Your task to perform on an android device: turn off location history Image 0: 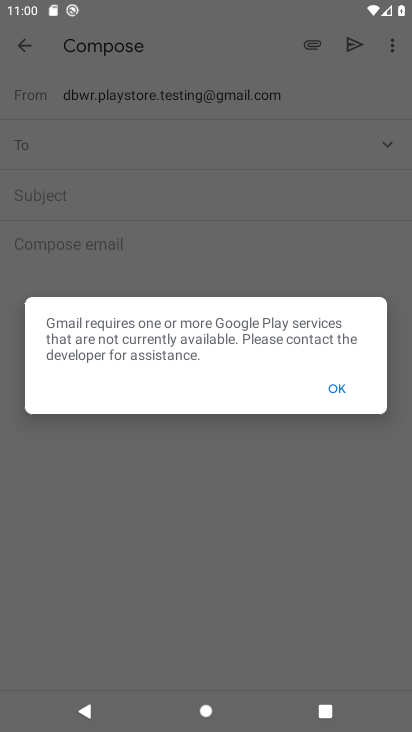
Step 0: press home button
Your task to perform on an android device: turn off location history Image 1: 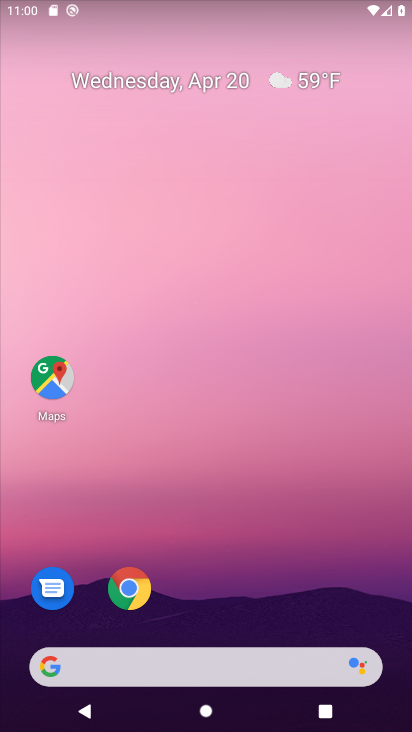
Step 1: click (50, 383)
Your task to perform on an android device: turn off location history Image 2: 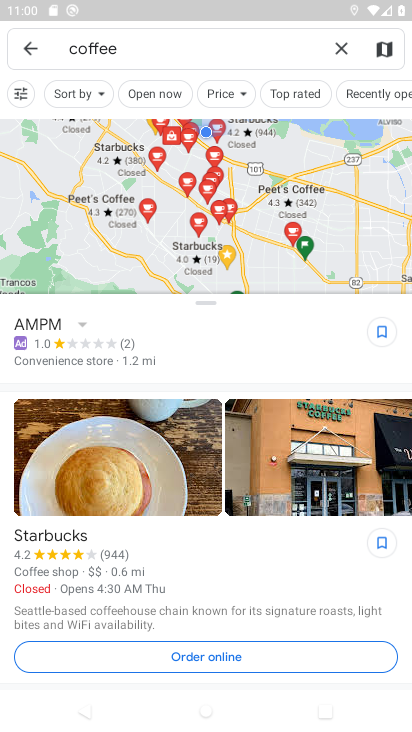
Step 2: click (24, 50)
Your task to perform on an android device: turn off location history Image 3: 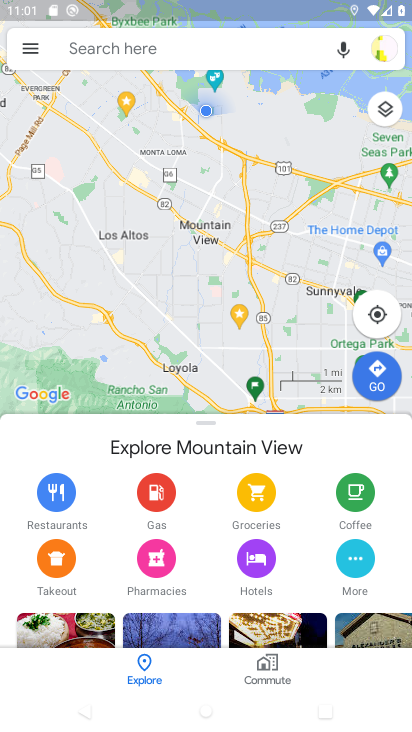
Step 3: click (34, 49)
Your task to perform on an android device: turn off location history Image 4: 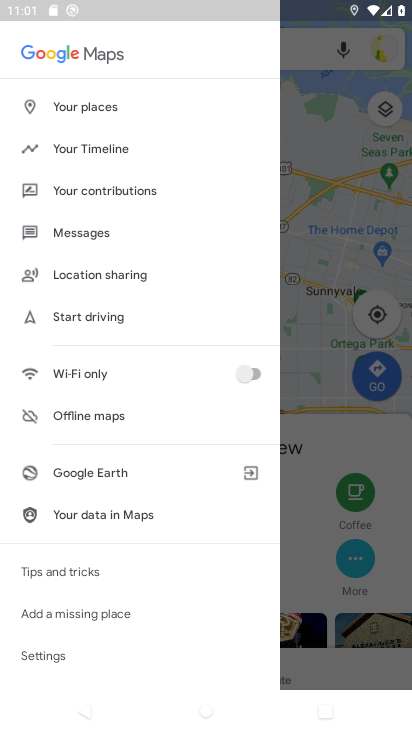
Step 4: click (93, 144)
Your task to perform on an android device: turn off location history Image 5: 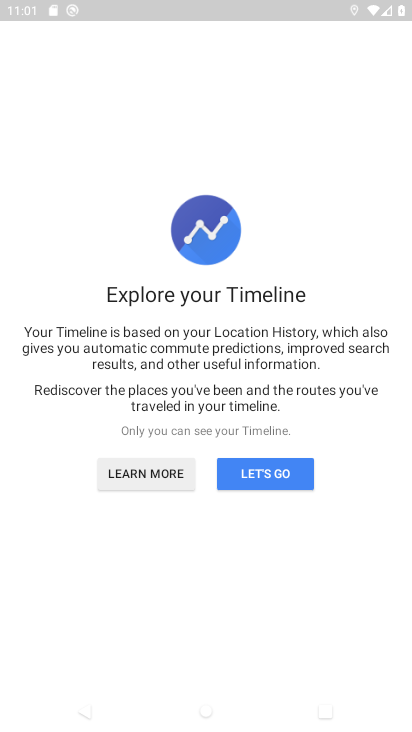
Step 5: click (247, 472)
Your task to perform on an android device: turn off location history Image 6: 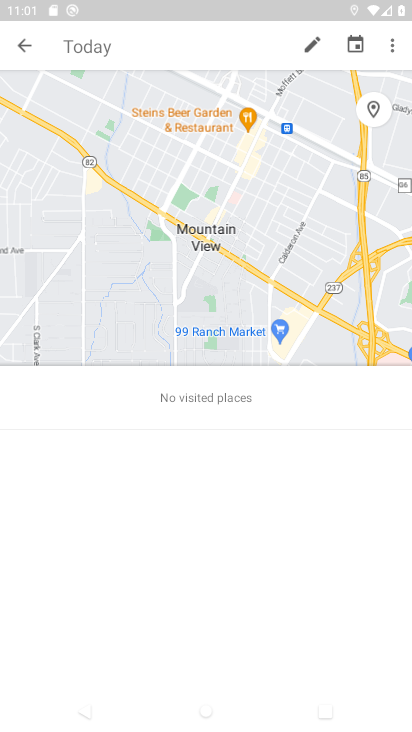
Step 6: click (390, 48)
Your task to perform on an android device: turn off location history Image 7: 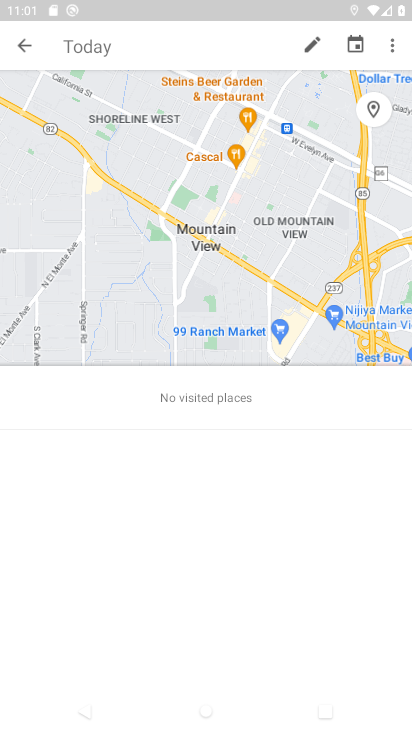
Step 7: click (391, 43)
Your task to perform on an android device: turn off location history Image 8: 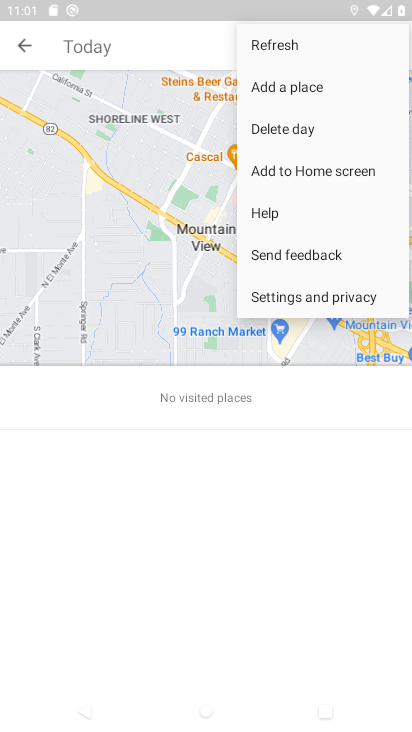
Step 8: click (320, 293)
Your task to perform on an android device: turn off location history Image 9: 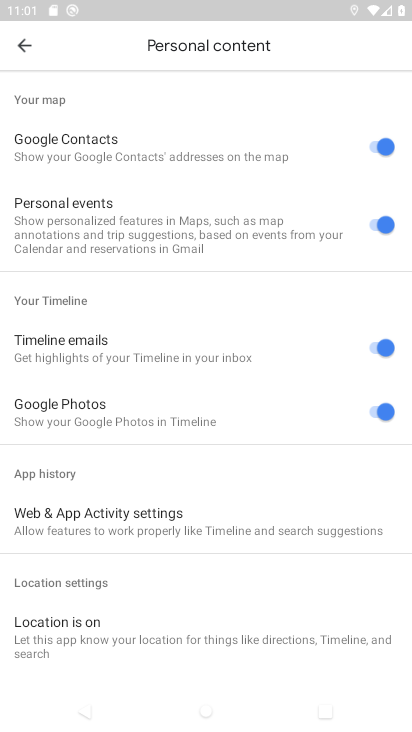
Step 9: drag from (138, 586) to (132, 338)
Your task to perform on an android device: turn off location history Image 10: 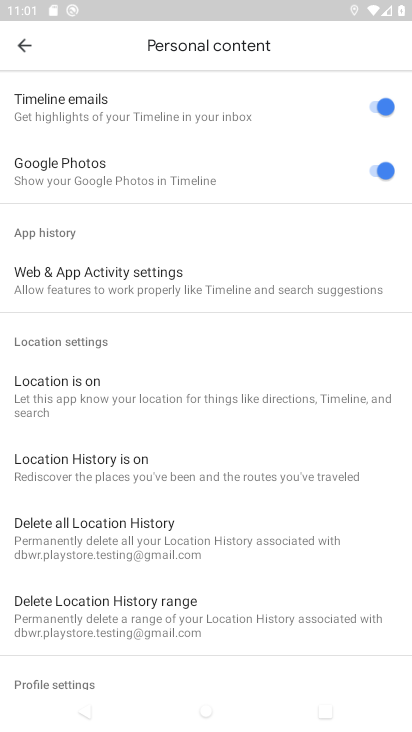
Step 10: click (95, 461)
Your task to perform on an android device: turn off location history Image 11: 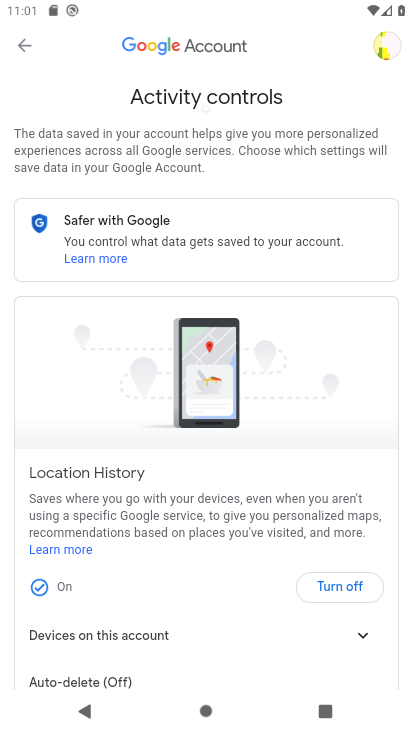
Step 11: drag from (172, 549) to (147, 248)
Your task to perform on an android device: turn off location history Image 12: 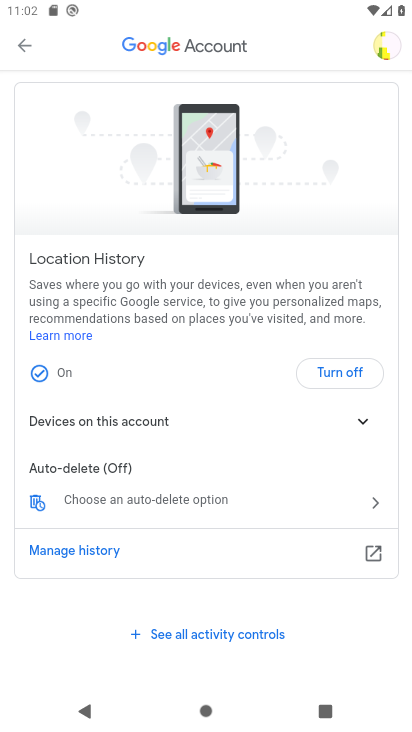
Step 12: click (340, 377)
Your task to perform on an android device: turn off location history Image 13: 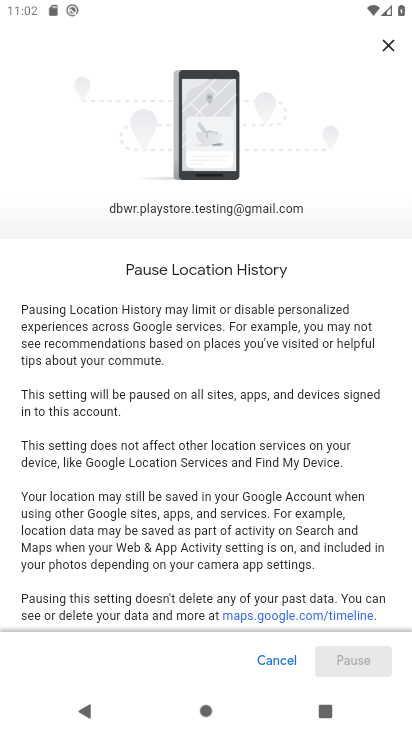
Step 13: drag from (287, 557) to (217, 76)
Your task to perform on an android device: turn off location history Image 14: 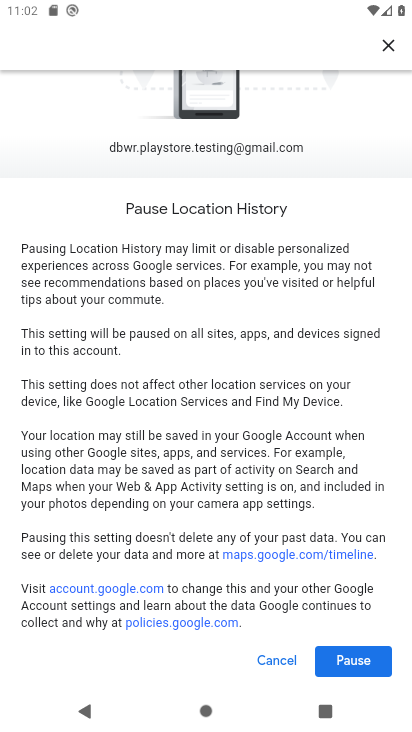
Step 14: click (347, 659)
Your task to perform on an android device: turn off location history Image 15: 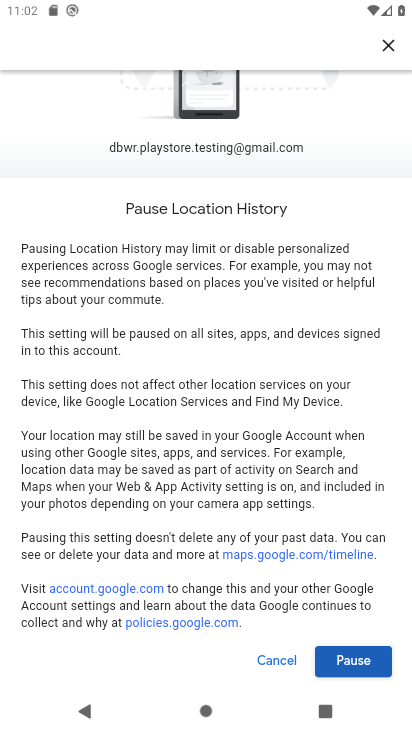
Step 15: click (349, 669)
Your task to perform on an android device: turn off location history Image 16: 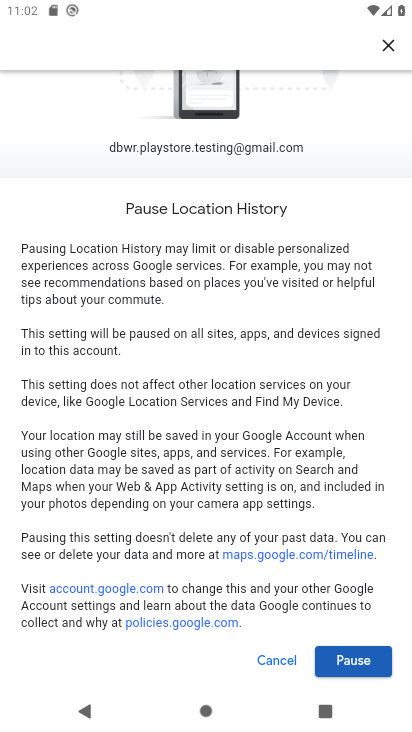
Step 16: click (349, 669)
Your task to perform on an android device: turn off location history Image 17: 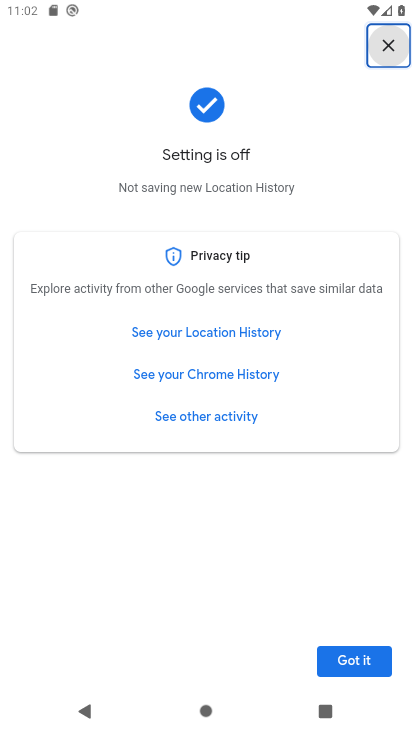
Step 17: click (355, 666)
Your task to perform on an android device: turn off location history Image 18: 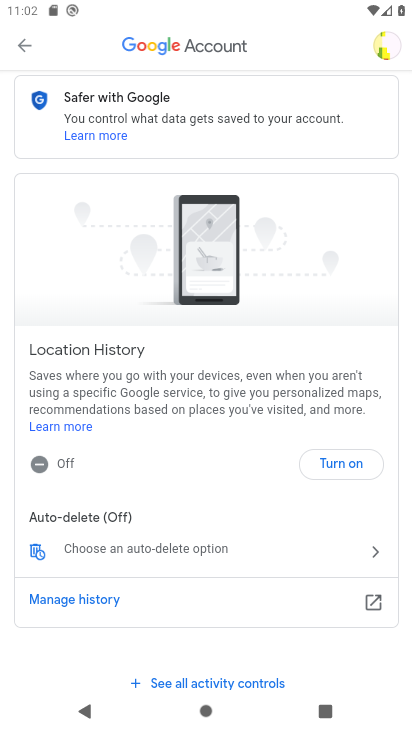
Step 18: task complete